Your task to perform on an android device: turn notification dots on Image 0: 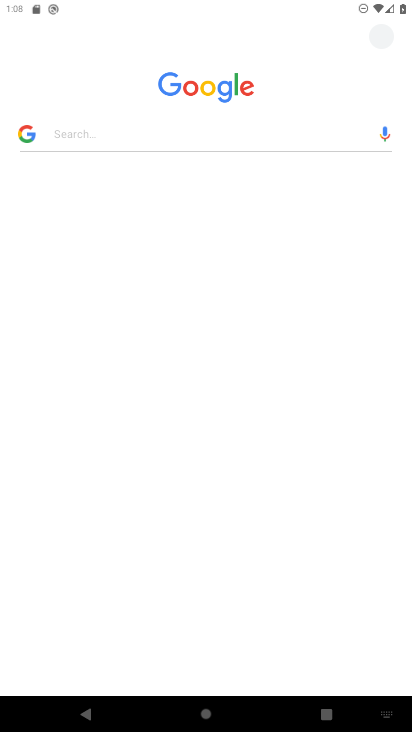
Step 0: press home button
Your task to perform on an android device: turn notification dots on Image 1: 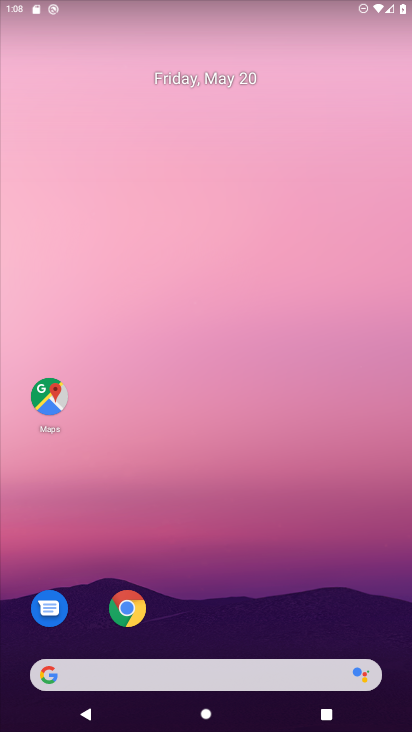
Step 1: drag from (320, 627) to (267, 240)
Your task to perform on an android device: turn notification dots on Image 2: 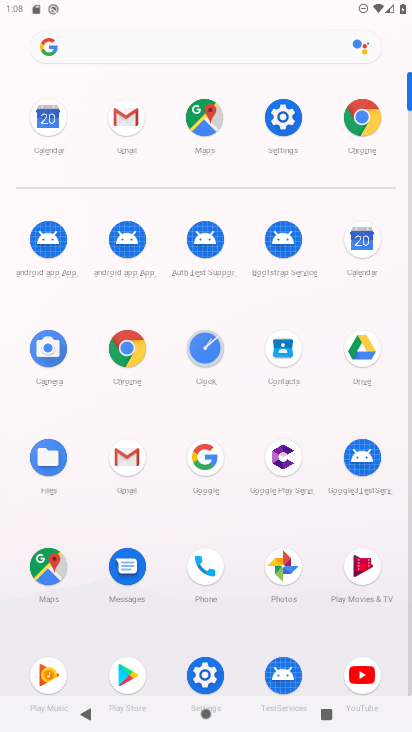
Step 2: click (285, 124)
Your task to perform on an android device: turn notification dots on Image 3: 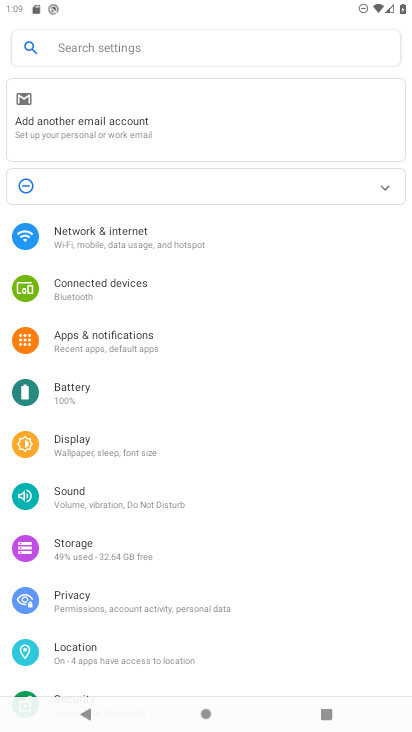
Step 3: click (122, 348)
Your task to perform on an android device: turn notification dots on Image 4: 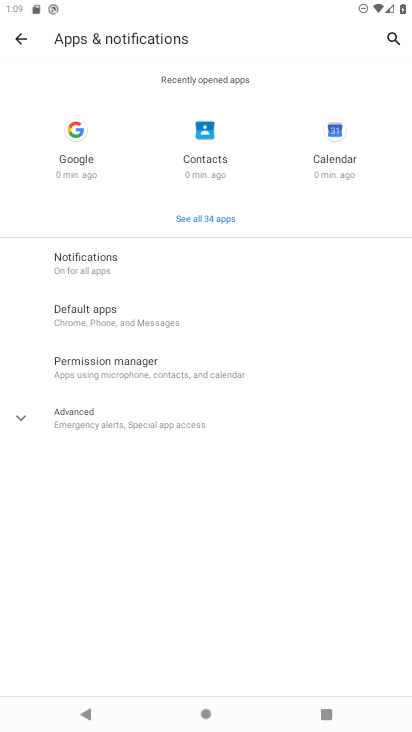
Step 4: click (109, 268)
Your task to perform on an android device: turn notification dots on Image 5: 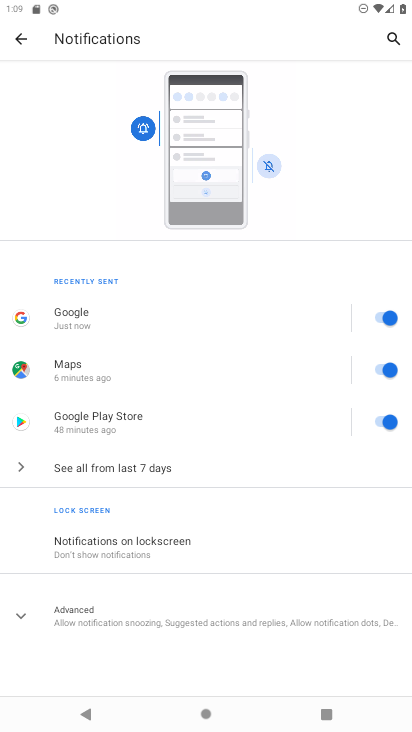
Step 5: click (111, 613)
Your task to perform on an android device: turn notification dots on Image 6: 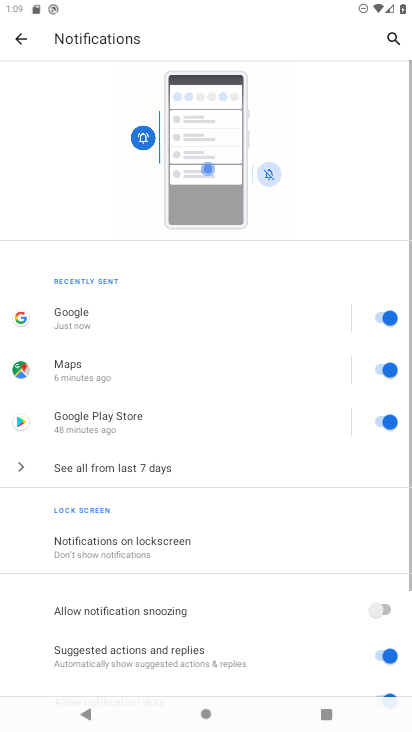
Step 6: task complete